Your task to perform on an android device: Open Chrome and go to settings Image 0: 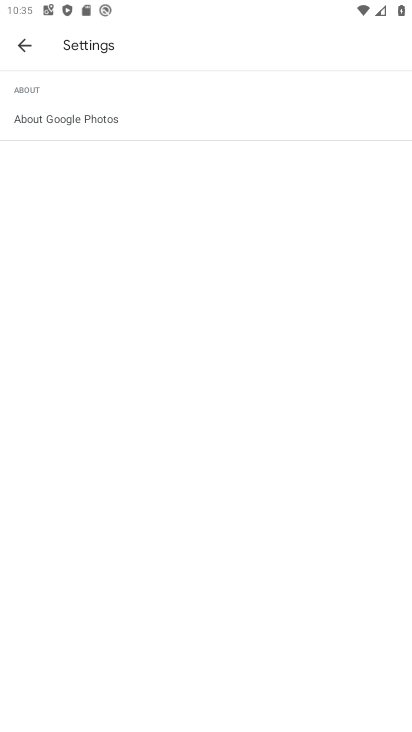
Step 0: press home button
Your task to perform on an android device: Open Chrome and go to settings Image 1: 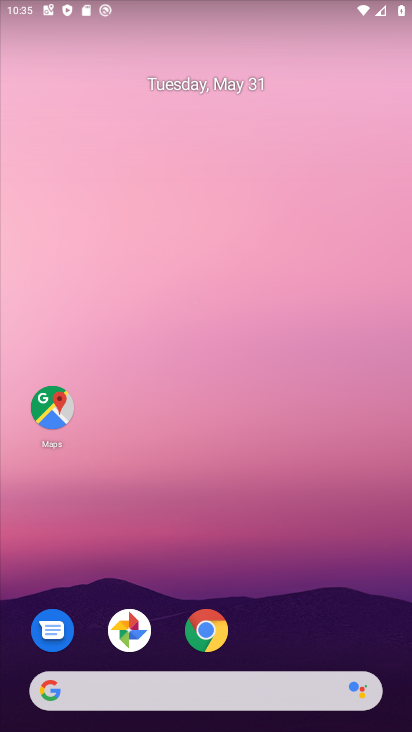
Step 1: click (202, 622)
Your task to perform on an android device: Open Chrome and go to settings Image 2: 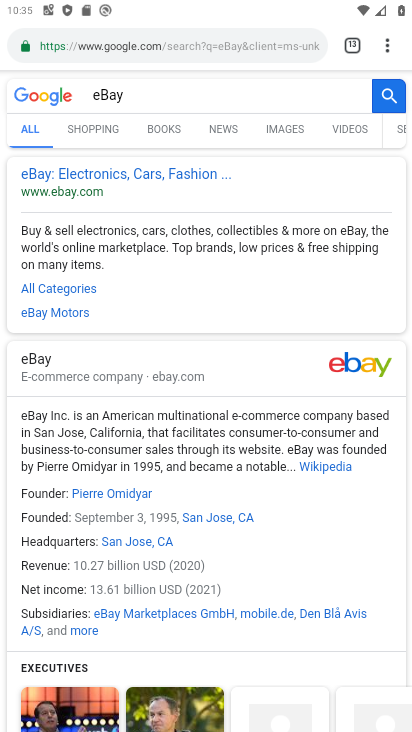
Step 2: click (382, 40)
Your task to perform on an android device: Open Chrome and go to settings Image 3: 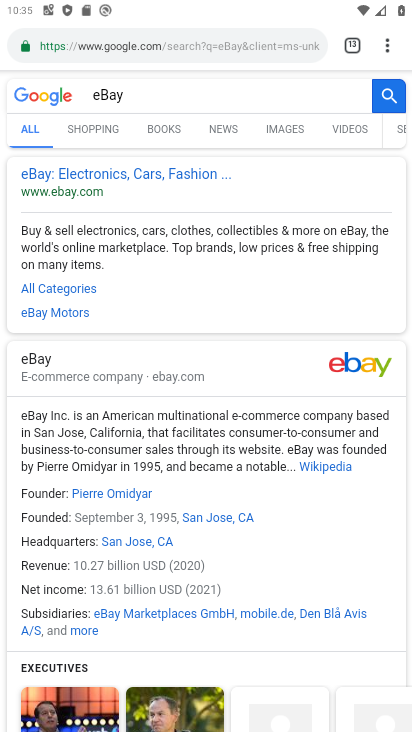
Step 3: click (391, 47)
Your task to perform on an android device: Open Chrome and go to settings Image 4: 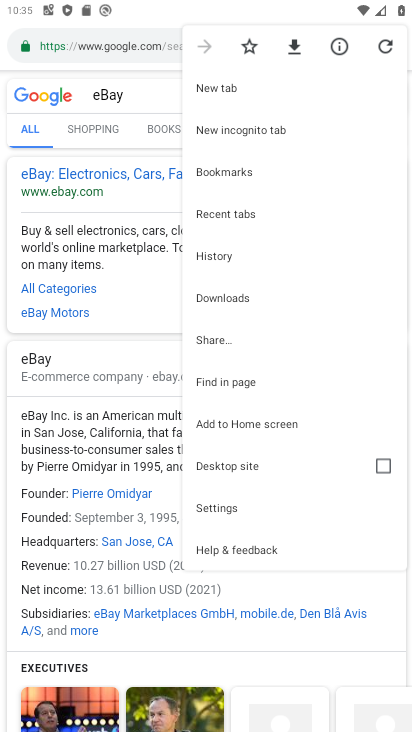
Step 4: click (243, 500)
Your task to perform on an android device: Open Chrome and go to settings Image 5: 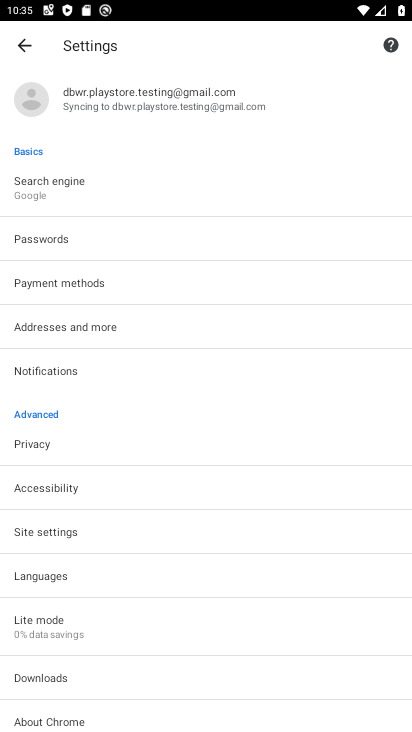
Step 5: task complete